Your task to perform on an android device: Show me recent news Image 0: 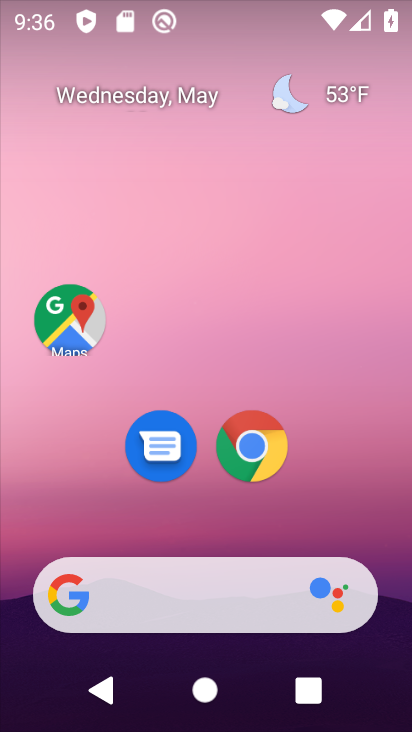
Step 0: drag from (12, 391) to (369, 315)
Your task to perform on an android device: Show me recent news Image 1: 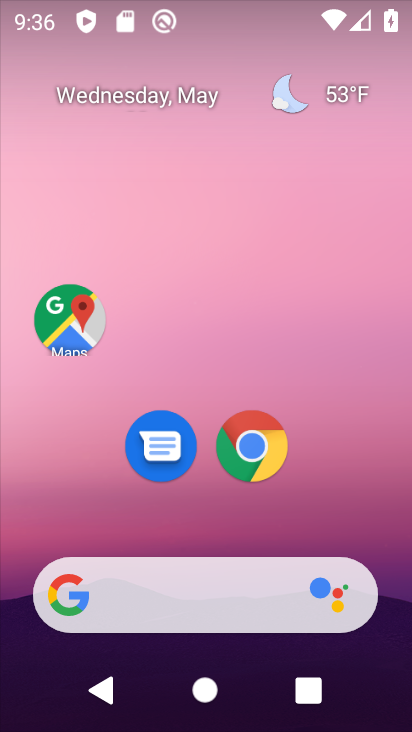
Step 1: task complete